Your task to perform on an android device: Go to network settings Image 0: 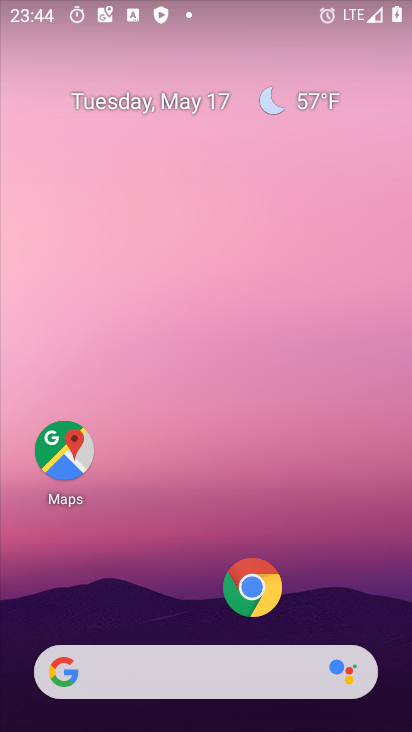
Step 0: drag from (57, 597) to (266, 180)
Your task to perform on an android device: Go to network settings Image 1: 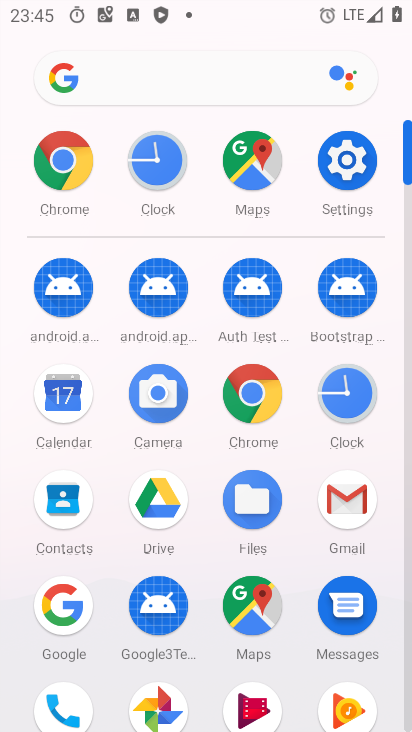
Step 1: click (351, 173)
Your task to perform on an android device: Go to network settings Image 2: 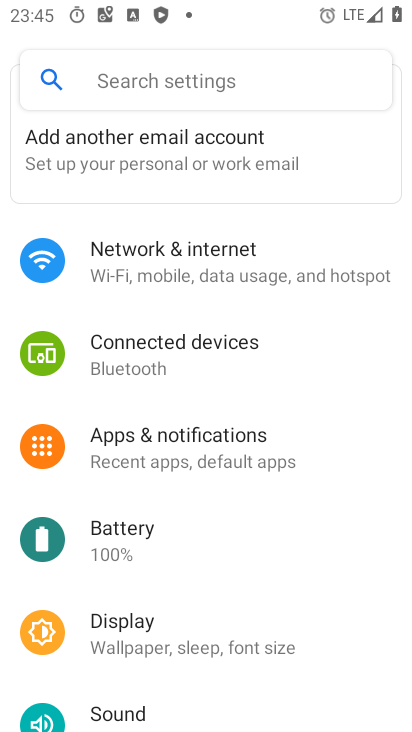
Step 2: click (178, 263)
Your task to perform on an android device: Go to network settings Image 3: 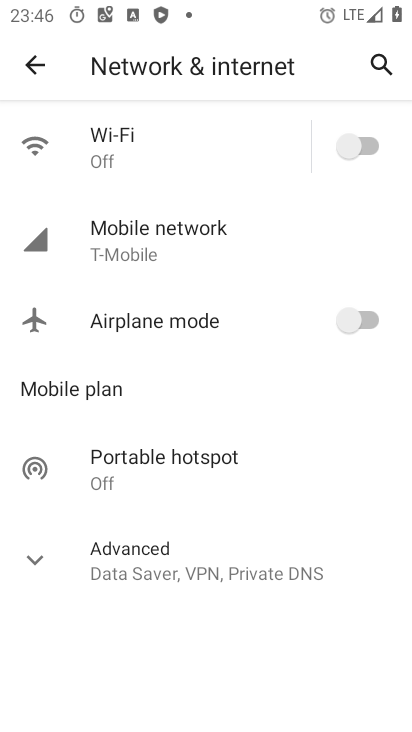
Step 3: click (172, 251)
Your task to perform on an android device: Go to network settings Image 4: 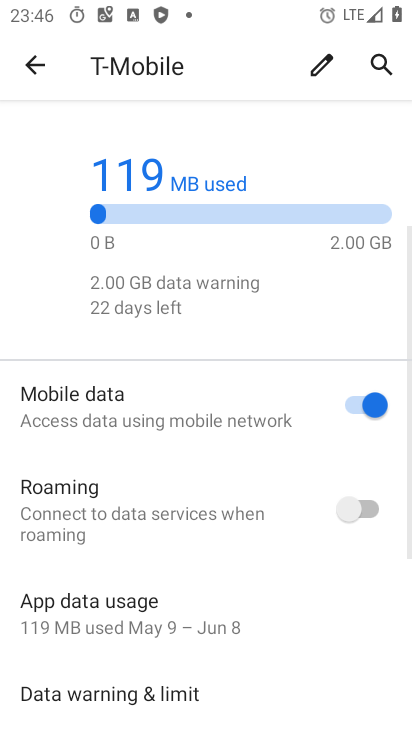
Step 4: task complete